Your task to perform on an android device: turn vacation reply on in the gmail app Image 0: 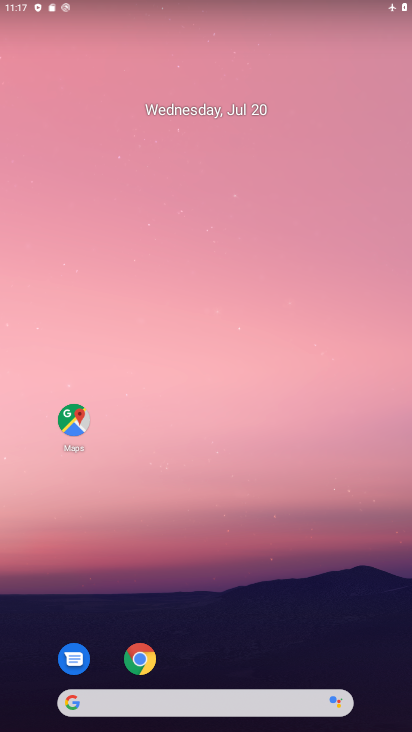
Step 0: drag from (239, 645) to (225, 39)
Your task to perform on an android device: turn vacation reply on in the gmail app Image 1: 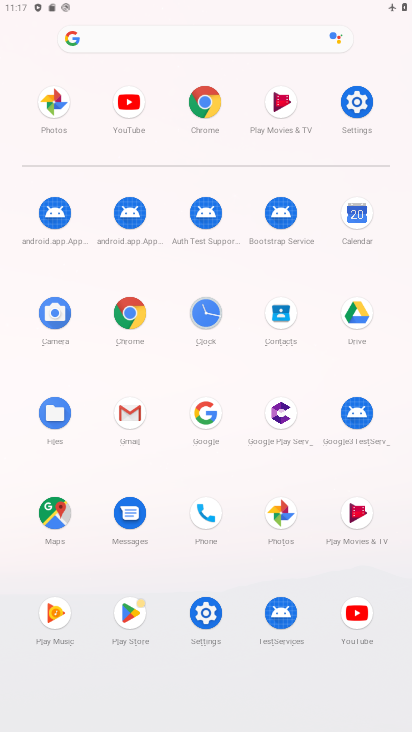
Step 1: click (132, 424)
Your task to perform on an android device: turn vacation reply on in the gmail app Image 2: 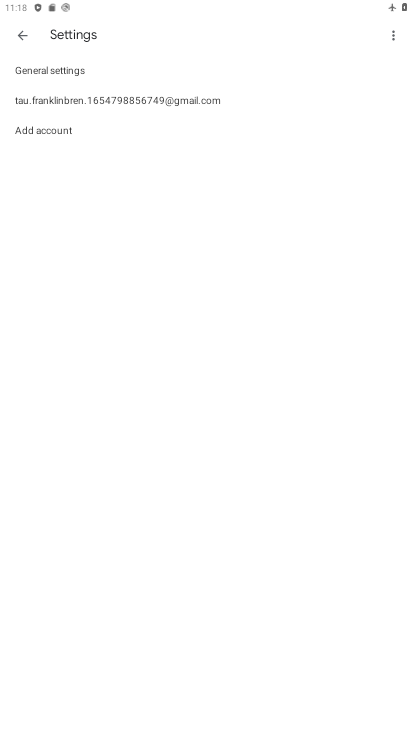
Step 2: click (93, 103)
Your task to perform on an android device: turn vacation reply on in the gmail app Image 3: 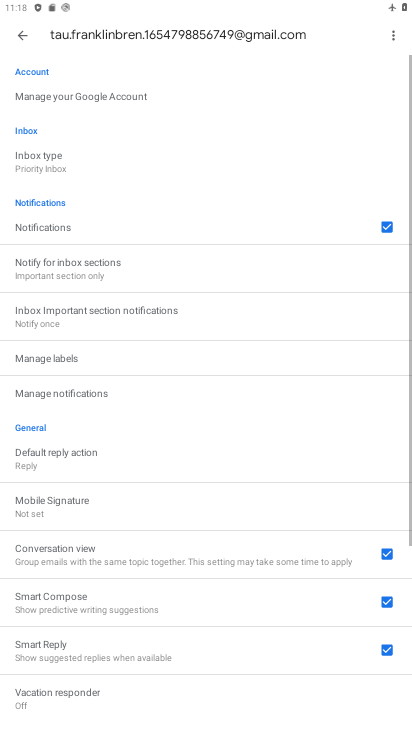
Step 3: drag from (147, 619) to (170, 470)
Your task to perform on an android device: turn vacation reply on in the gmail app Image 4: 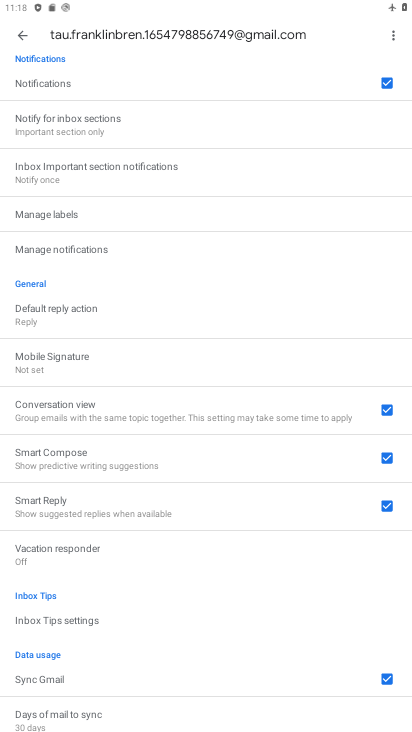
Step 4: click (99, 554)
Your task to perform on an android device: turn vacation reply on in the gmail app Image 5: 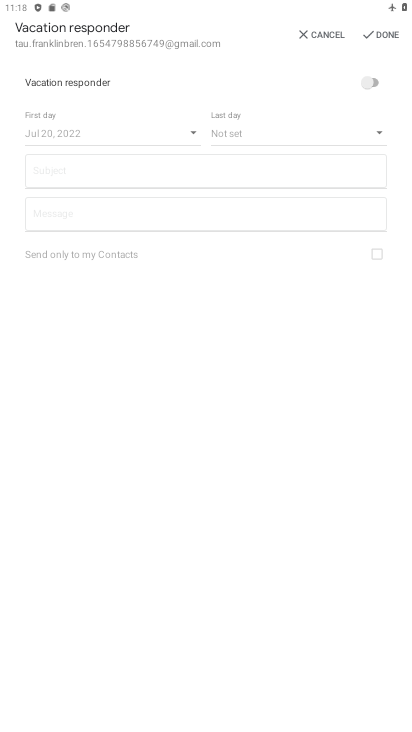
Step 5: click (384, 81)
Your task to perform on an android device: turn vacation reply on in the gmail app Image 6: 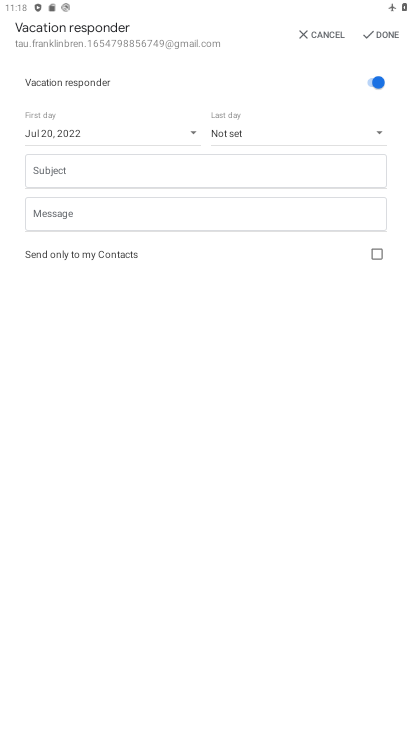
Step 6: click (396, 34)
Your task to perform on an android device: turn vacation reply on in the gmail app Image 7: 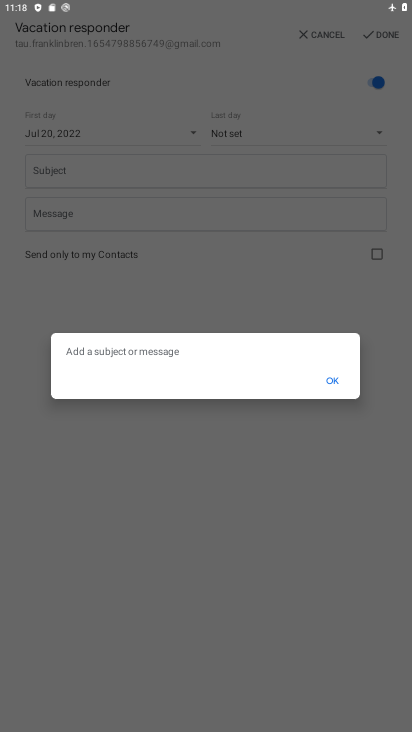
Step 7: click (339, 381)
Your task to perform on an android device: turn vacation reply on in the gmail app Image 8: 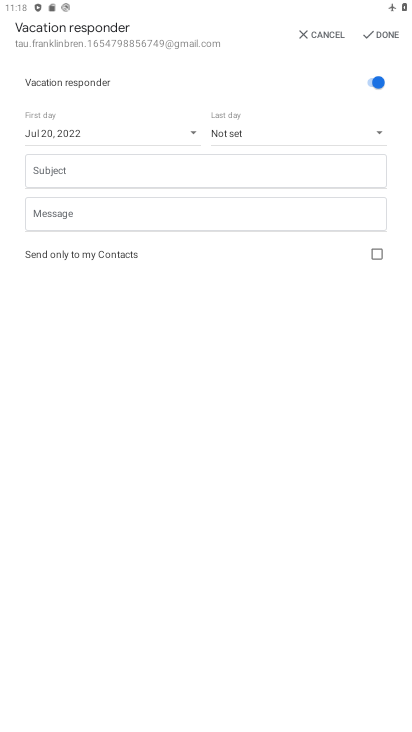
Step 8: click (190, 205)
Your task to perform on an android device: turn vacation reply on in the gmail app Image 9: 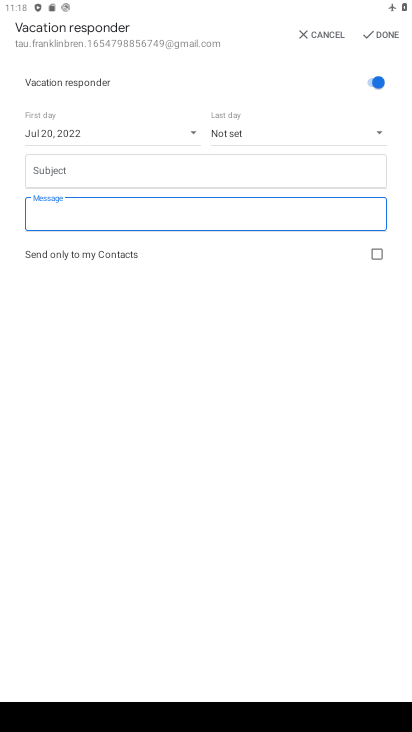
Step 9: type "Message"
Your task to perform on an android device: turn vacation reply on in the gmail app Image 10: 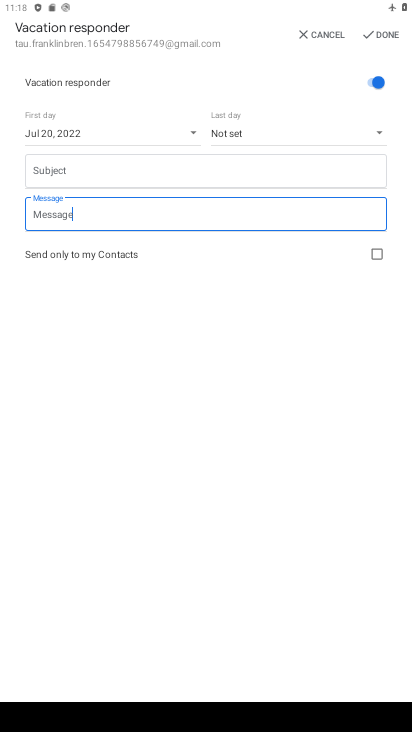
Step 10: click (395, 30)
Your task to perform on an android device: turn vacation reply on in the gmail app Image 11: 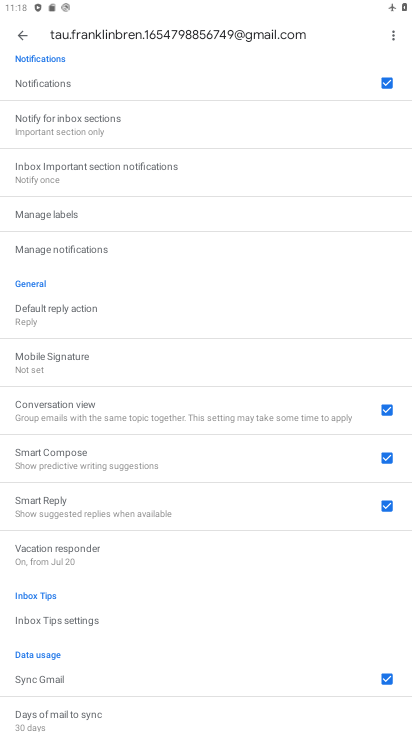
Step 11: task complete